Your task to perform on an android device: Go to battery settings Image 0: 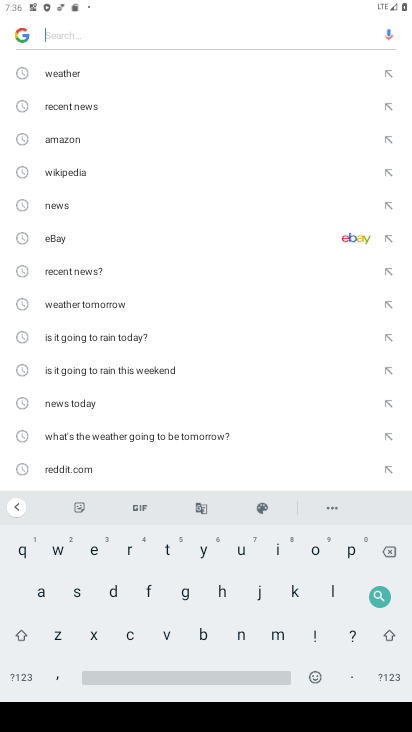
Step 0: press home button
Your task to perform on an android device: Go to battery settings Image 1: 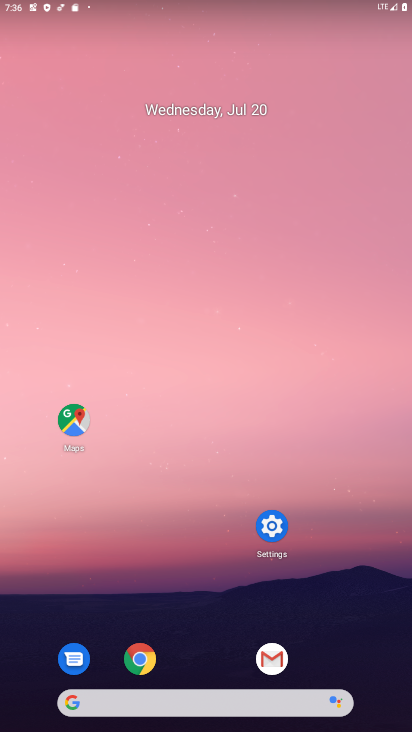
Step 1: click (274, 520)
Your task to perform on an android device: Go to battery settings Image 2: 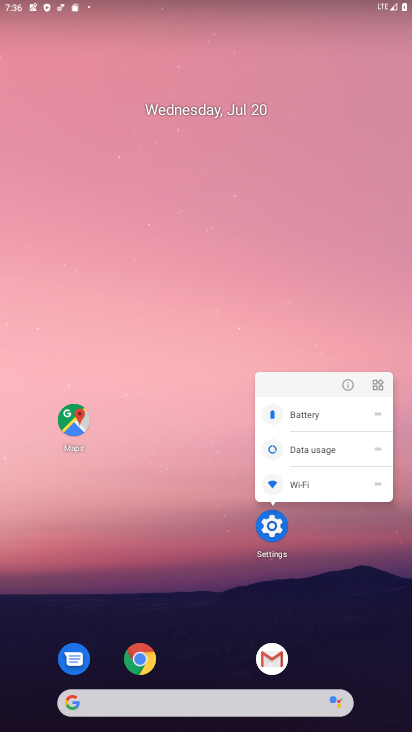
Step 2: click (270, 527)
Your task to perform on an android device: Go to battery settings Image 3: 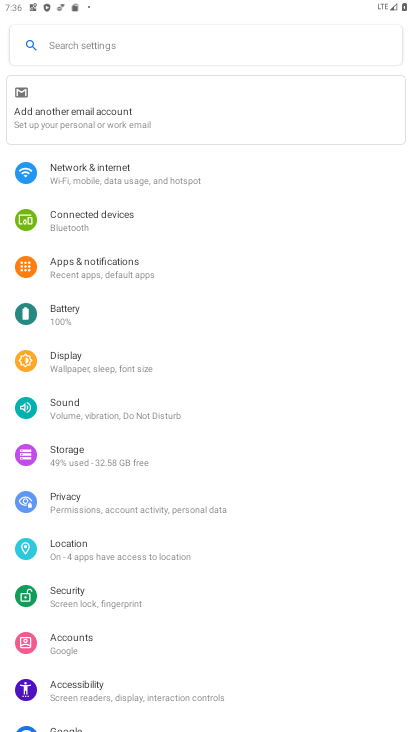
Step 3: click (84, 321)
Your task to perform on an android device: Go to battery settings Image 4: 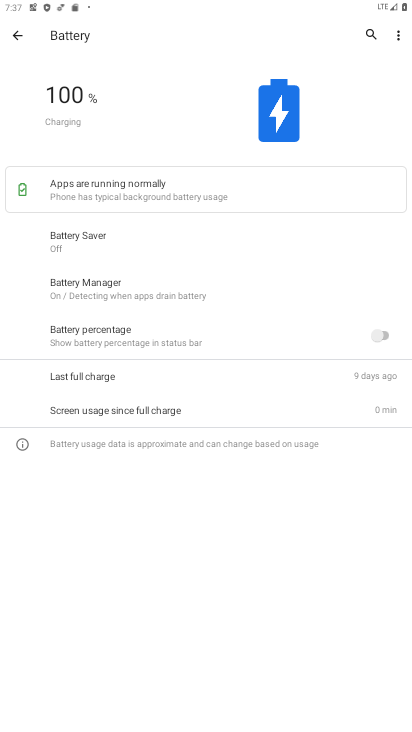
Step 4: task complete